Your task to perform on an android device: Open internet settings Image 0: 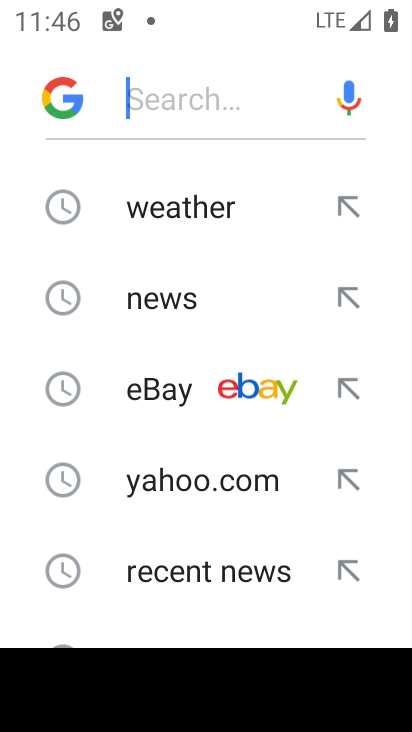
Step 0: press home button
Your task to perform on an android device: Open internet settings Image 1: 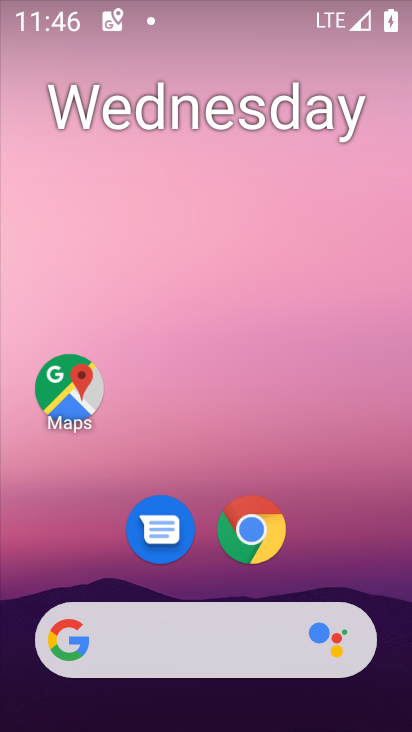
Step 1: drag from (390, 624) to (329, 89)
Your task to perform on an android device: Open internet settings Image 2: 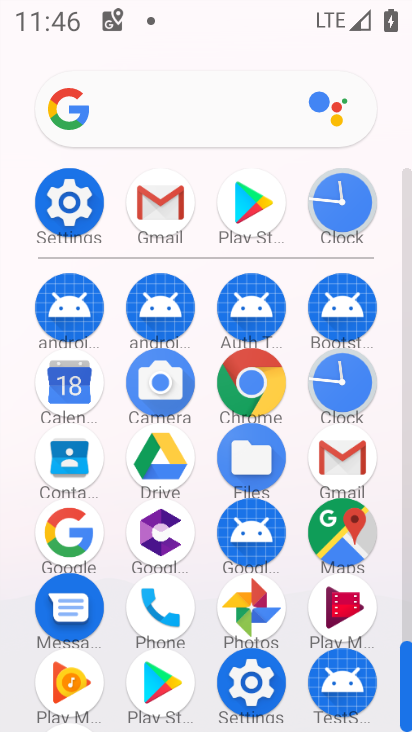
Step 2: click (249, 681)
Your task to perform on an android device: Open internet settings Image 3: 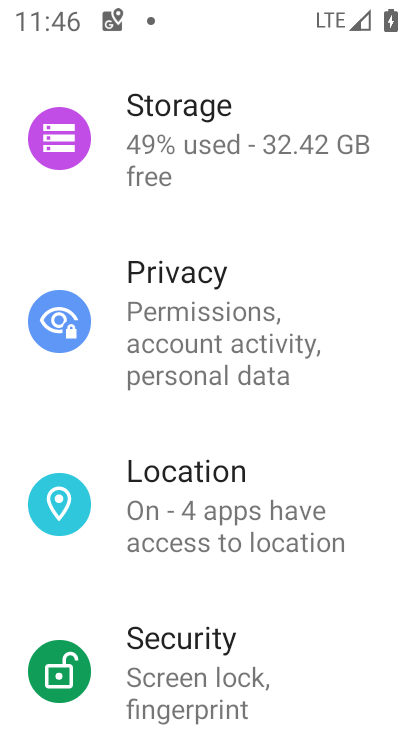
Step 3: drag from (341, 177) to (330, 527)
Your task to perform on an android device: Open internet settings Image 4: 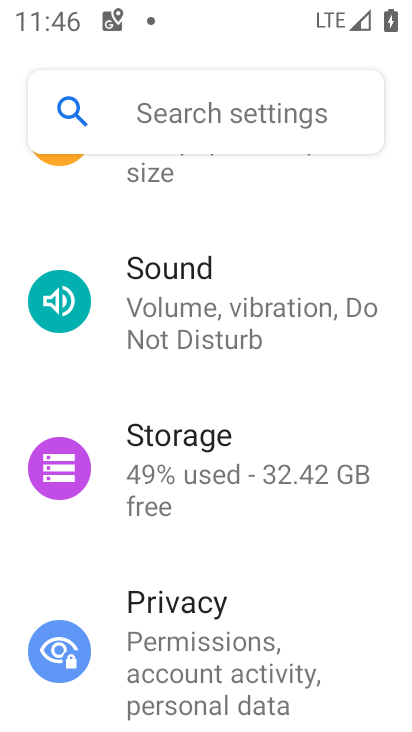
Step 4: drag from (361, 247) to (332, 614)
Your task to perform on an android device: Open internet settings Image 5: 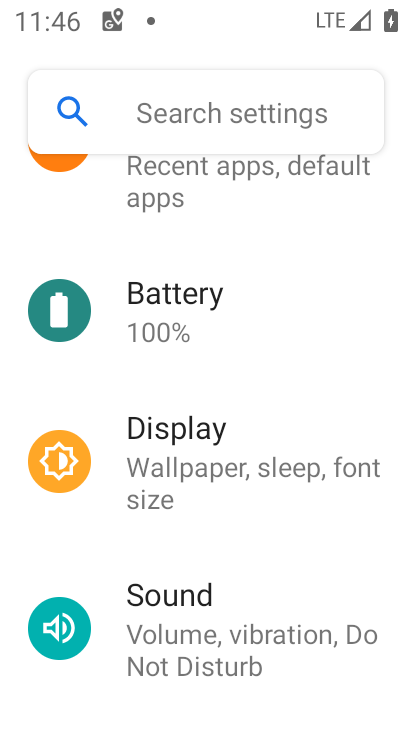
Step 5: drag from (338, 235) to (372, 619)
Your task to perform on an android device: Open internet settings Image 6: 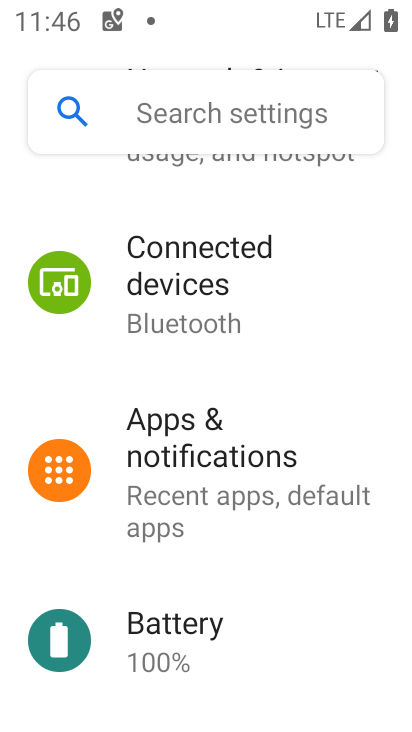
Step 6: drag from (328, 246) to (350, 579)
Your task to perform on an android device: Open internet settings Image 7: 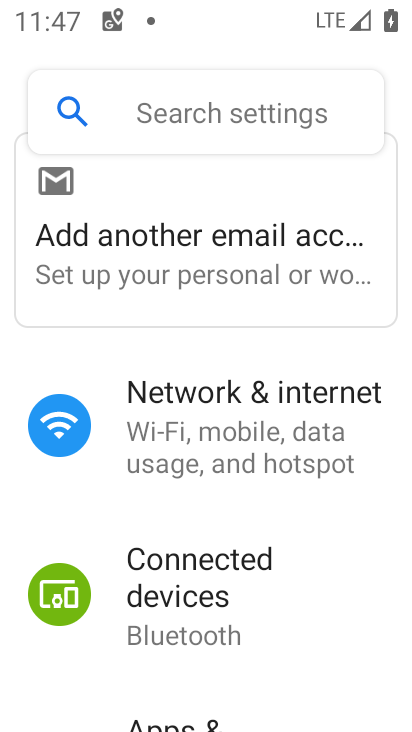
Step 7: click (199, 420)
Your task to perform on an android device: Open internet settings Image 8: 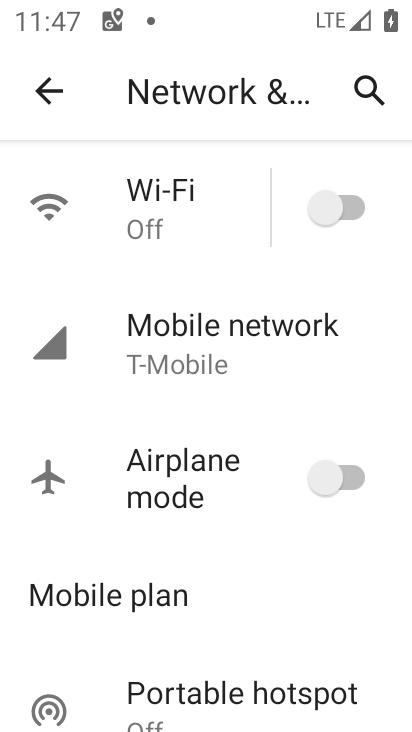
Step 8: click (169, 325)
Your task to perform on an android device: Open internet settings Image 9: 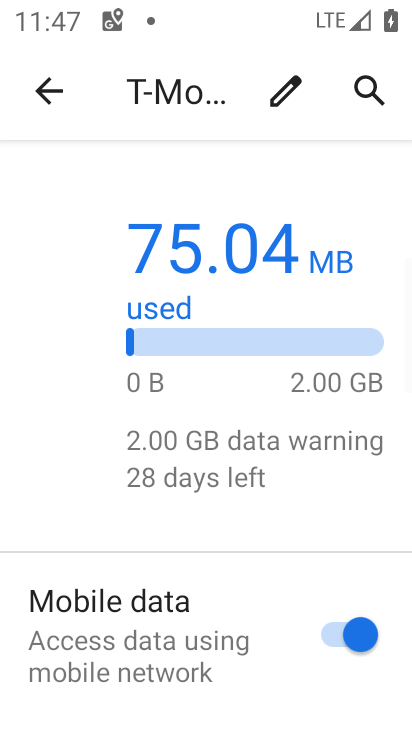
Step 9: task complete